Your task to perform on an android device: make emails show in primary in the gmail app Image 0: 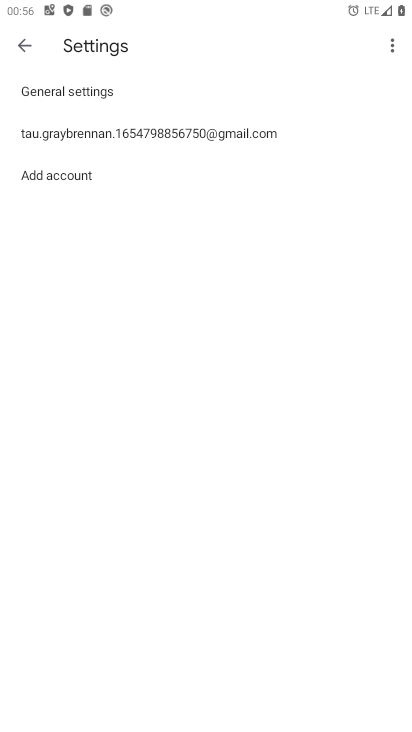
Step 0: click (13, 38)
Your task to perform on an android device: make emails show in primary in the gmail app Image 1: 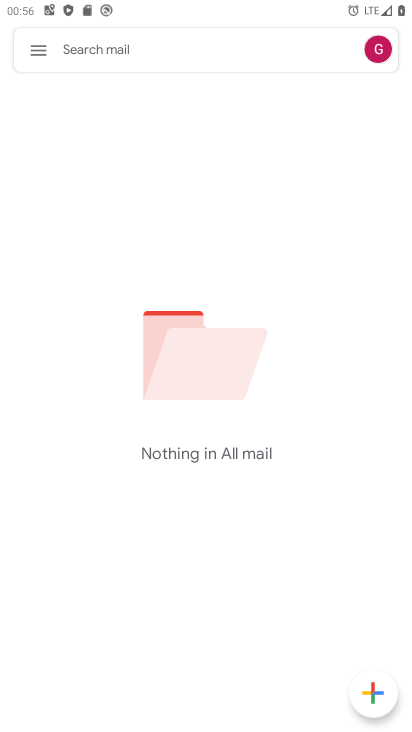
Step 1: click (46, 54)
Your task to perform on an android device: make emails show in primary in the gmail app Image 2: 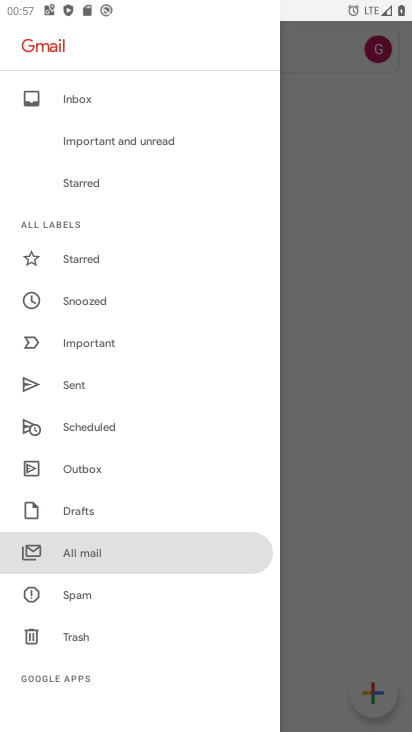
Step 2: task complete